Your task to perform on an android device: Open calendar and show me the fourth week of next month Image 0: 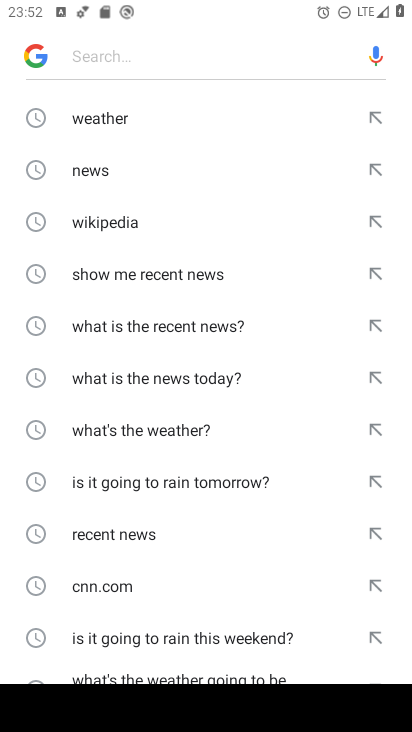
Step 0: press home button
Your task to perform on an android device: Open calendar and show me the fourth week of next month Image 1: 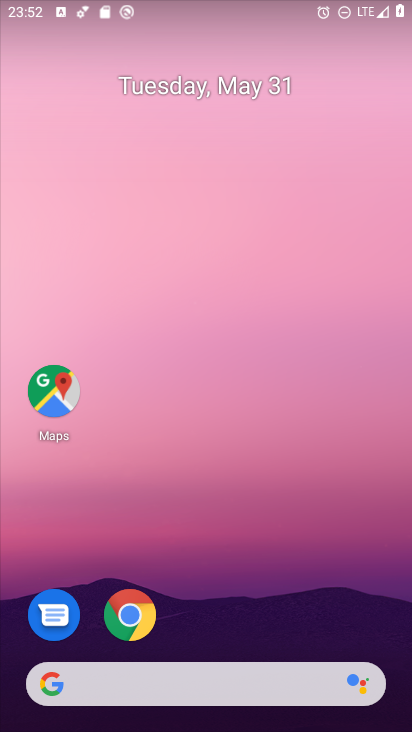
Step 1: drag from (395, 666) to (319, 179)
Your task to perform on an android device: Open calendar and show me the fourth week of next month Image 2: 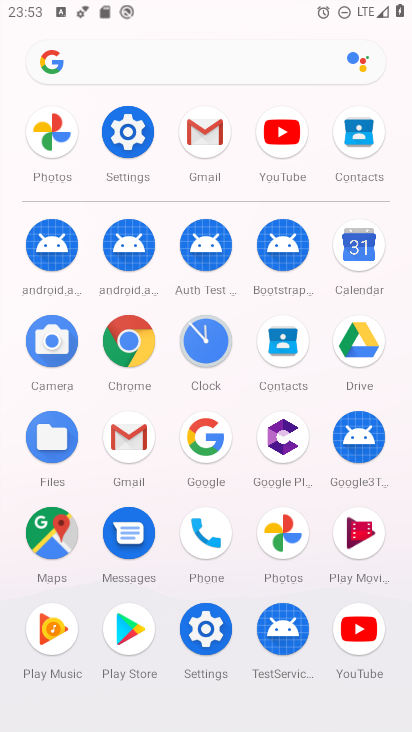
Step 2: click (358, 246)
Your task to perform on an android device: Open calendar and show me the fourth week of next month Image 3: 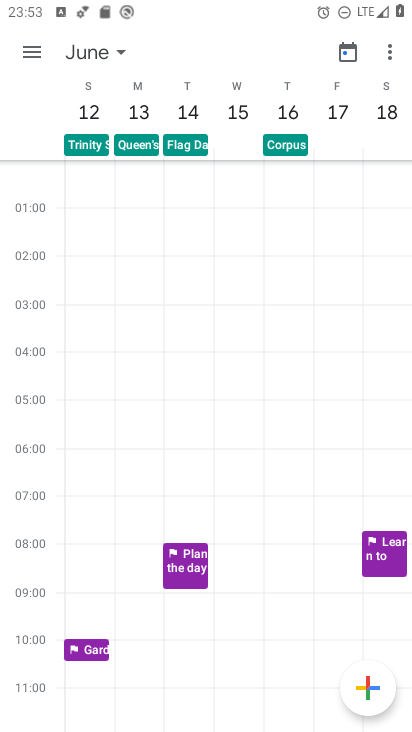
Step 3: click (122, 48)
Your task to perform on an android device: Open calendar and show me the fourth week of next month Image 4: 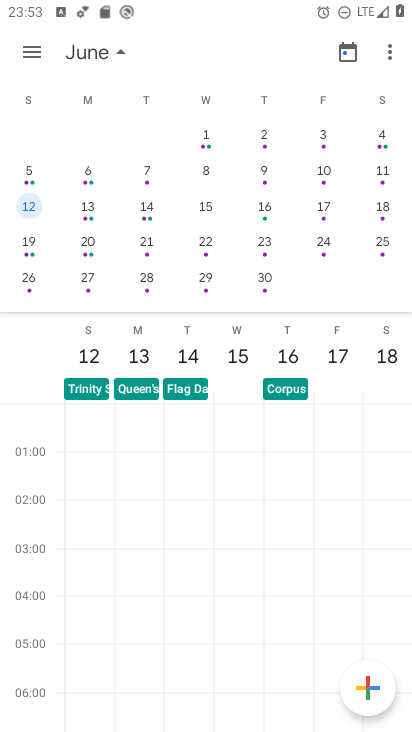
Step 4: click (31, 280)
Your task to perform on an android device: Open calendar and show me the fourth week of next month Image 5: 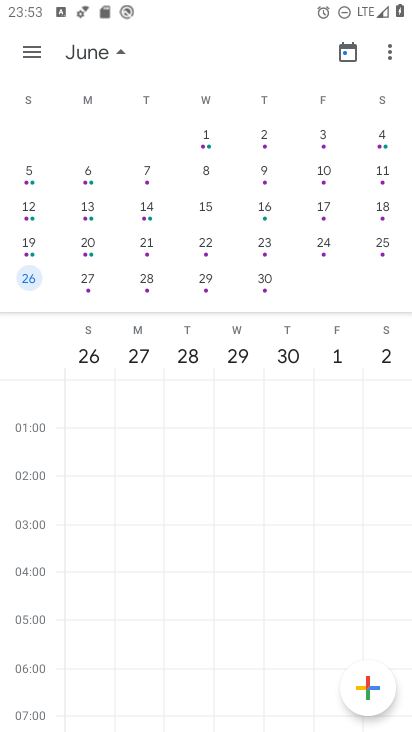
Step 5: task complete